Your task to perform on an android device: check the backup settings in the google photos Image 0: 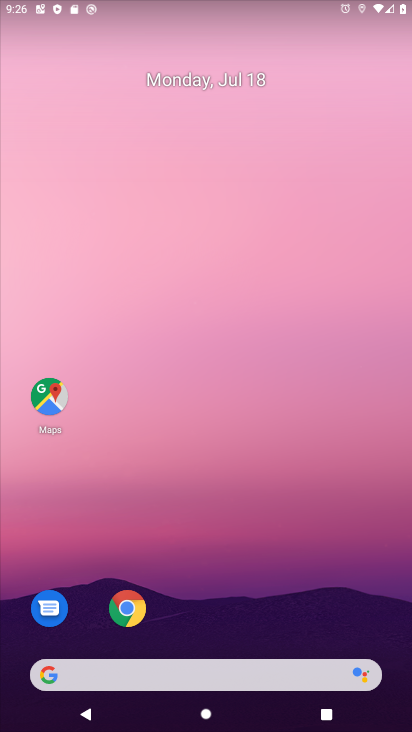
Step 0: drag from (101, 486) to (176, 289)
Your task to perform on an android device: check the backup settings in the google photos Image 1: 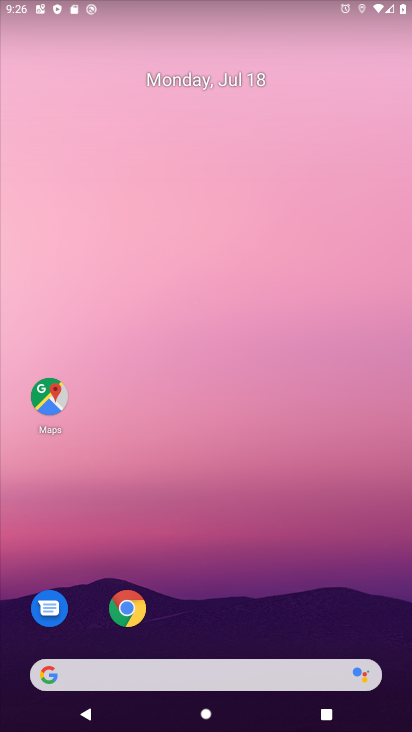
Step 1: drag from (30, 706) to (211, 116)
Your task to perform on an android device: check the backup settings in the google photos Image 2: 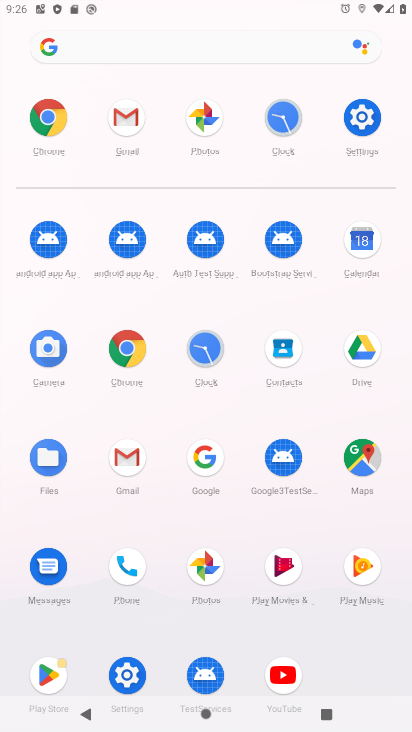
Step 2: click (213, 580)
Your task to perform on an android device: check the backup settings in the google photos Image 3: 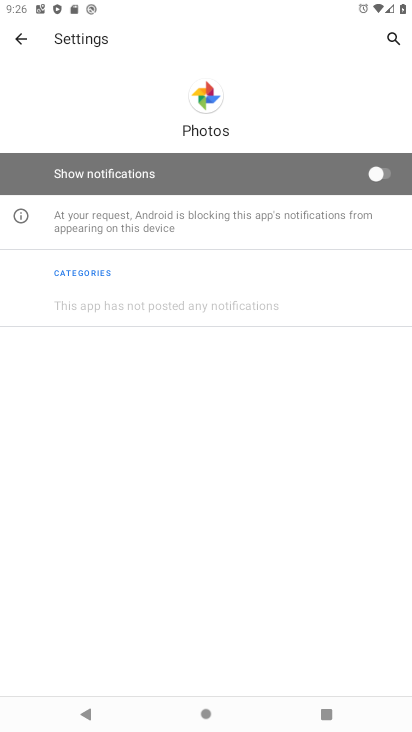
Step 3: click (12, 35)
Your task to perform on an android device: check the backup settings in the google photos Image 4: 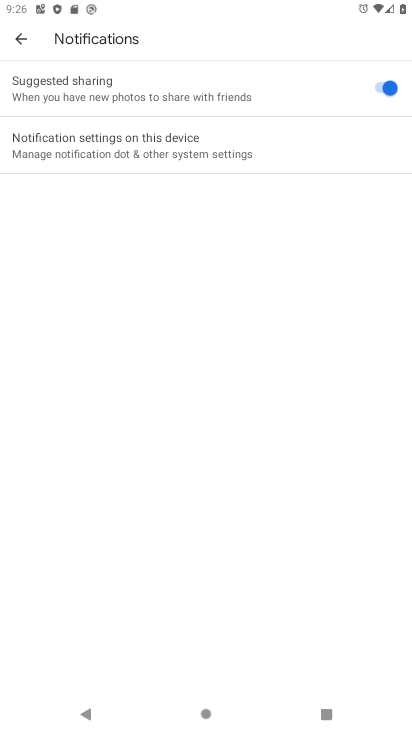
Step 4: click (17, 46)
Your task to perform on an android device: check the backup settings in the google photos Image 5: 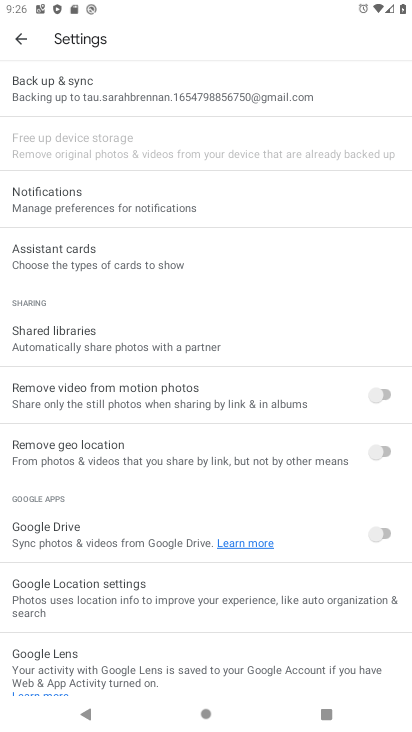
Step 5: click (69, 101)
Your task to perform on an android device: check the backup settings in the google photos Image 6: 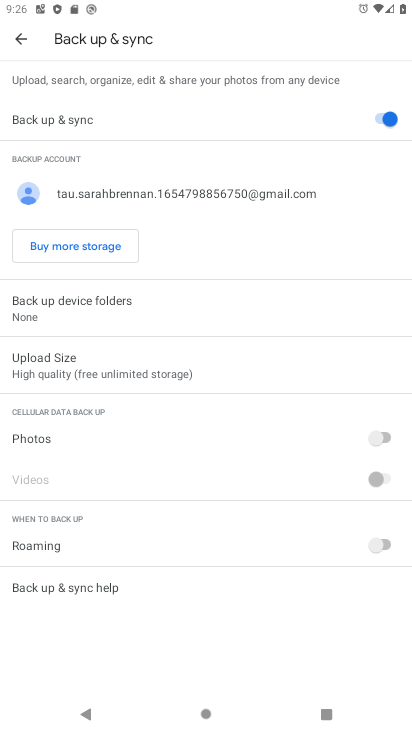
Step 6: task complete